Your task to perform on an android device: Clear the cart on newegg.com. Add "alienware area 51" to the cart on newegg.com, then select checkout. Image 0: 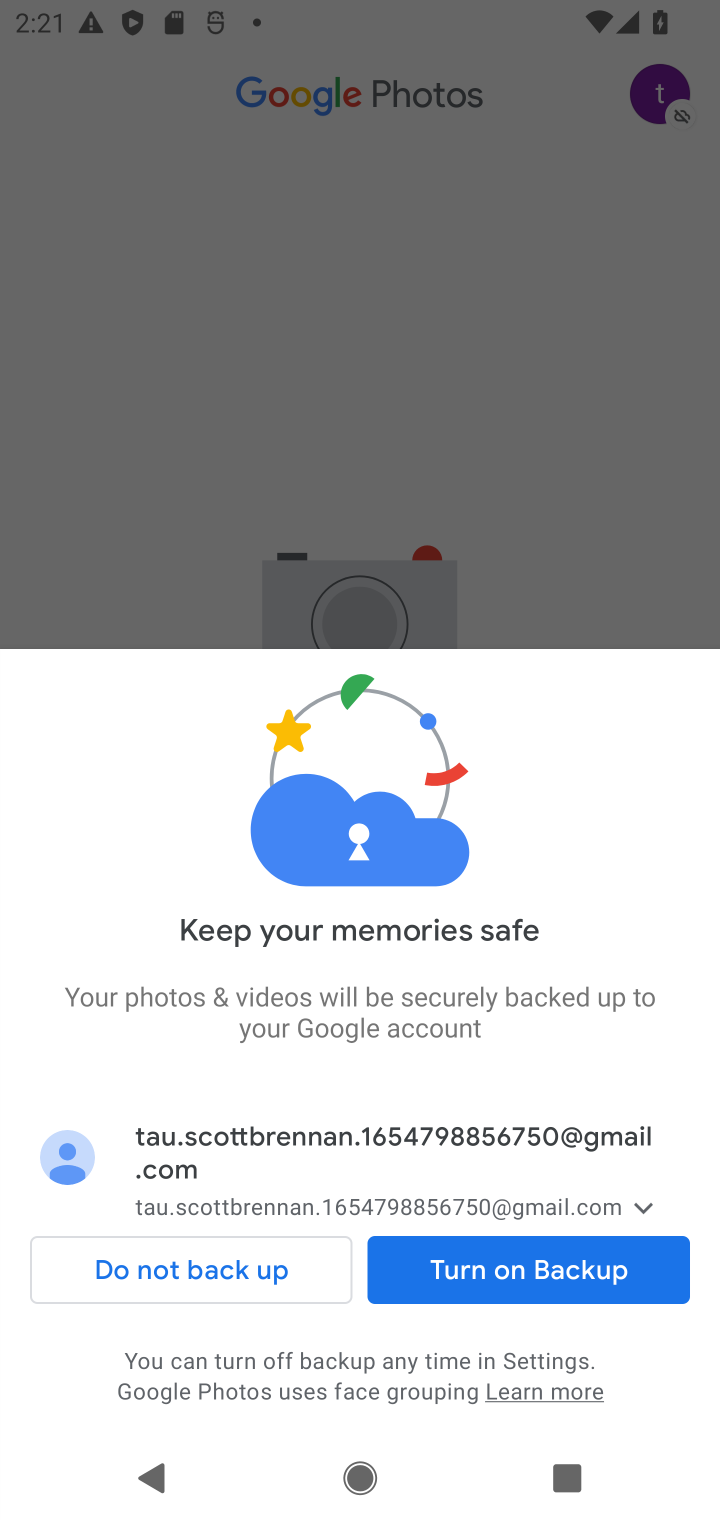
Step 0: press home button
Your task to perform on an android device: Clear the cart on newegg.com. Add "alienware area 51" to the cart on newegg.com, then select checkout. Image 1: 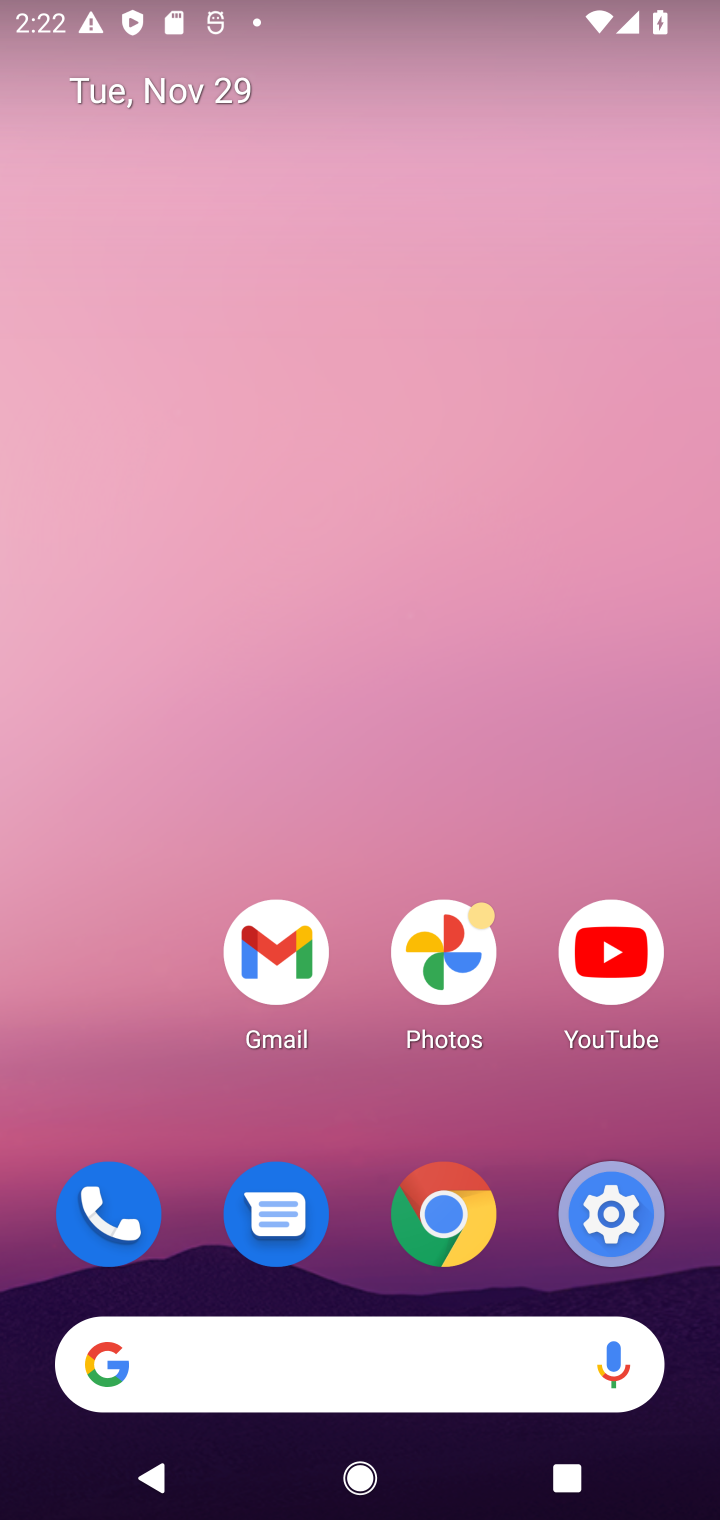
Step 1: click (371, 1396)
Your task to perform on an android device: Clear the cart on newegg.com. Add "alienware area 51" to the cart on newegg.com, then select checkout. Image 2: 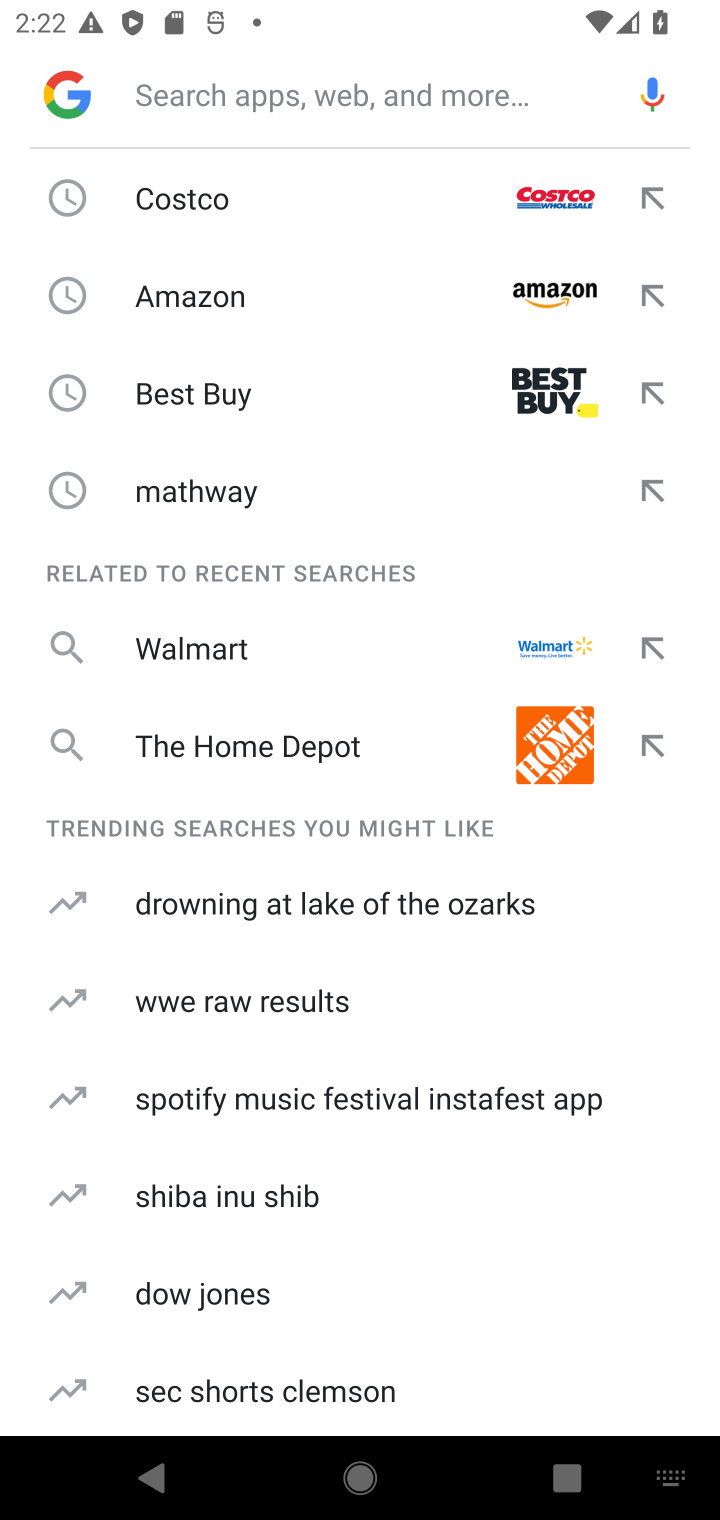
Step 2: type "newegg"
Your task to perform on an android device: Clear the cart on newegg.com. Add "alienware area 51" to the cart on newegg.com, then select checkout. Image 3: 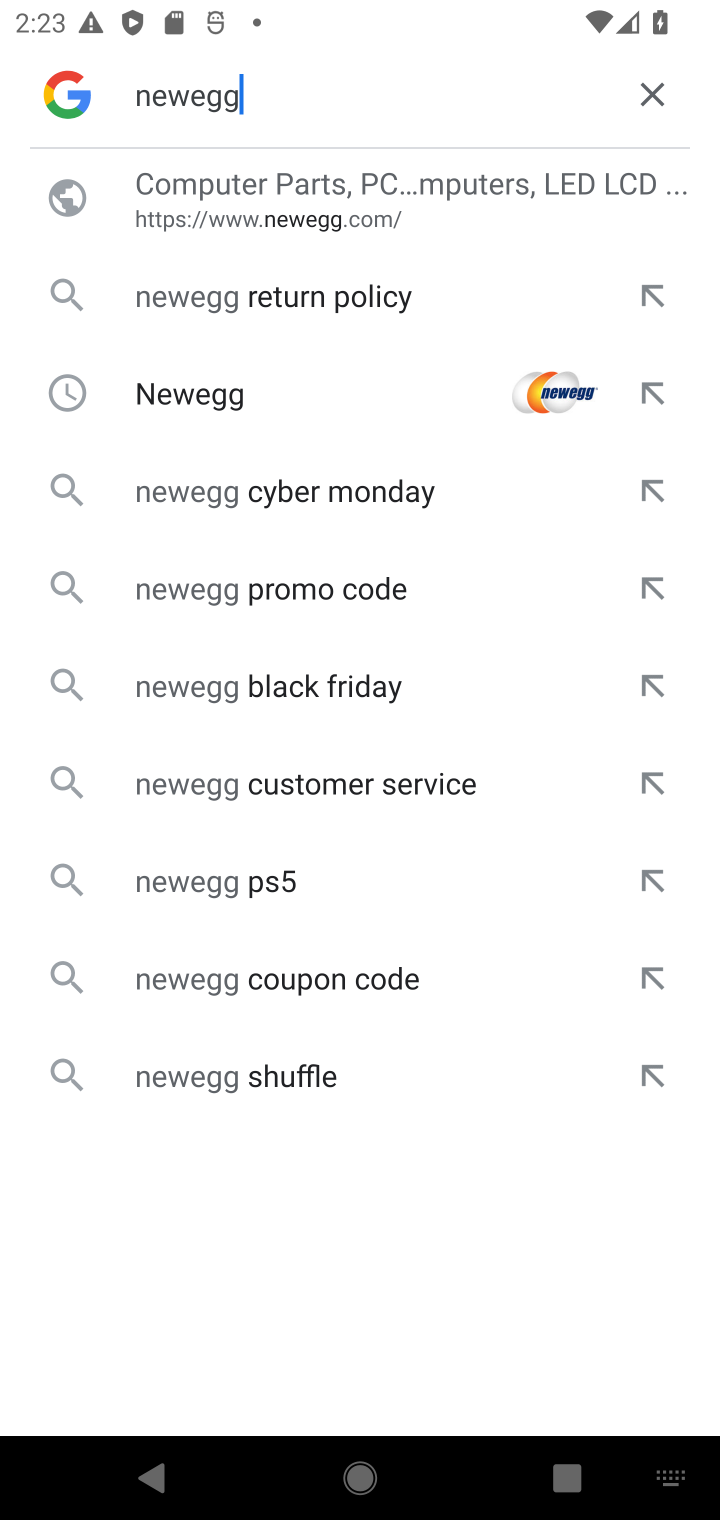
Step 3: click (263, 247)
Your task to perform on an android device: Clear the cart on newegg.com. Add "alienware area 51" to the cart on newegg.com, then select checkout. Image 4: 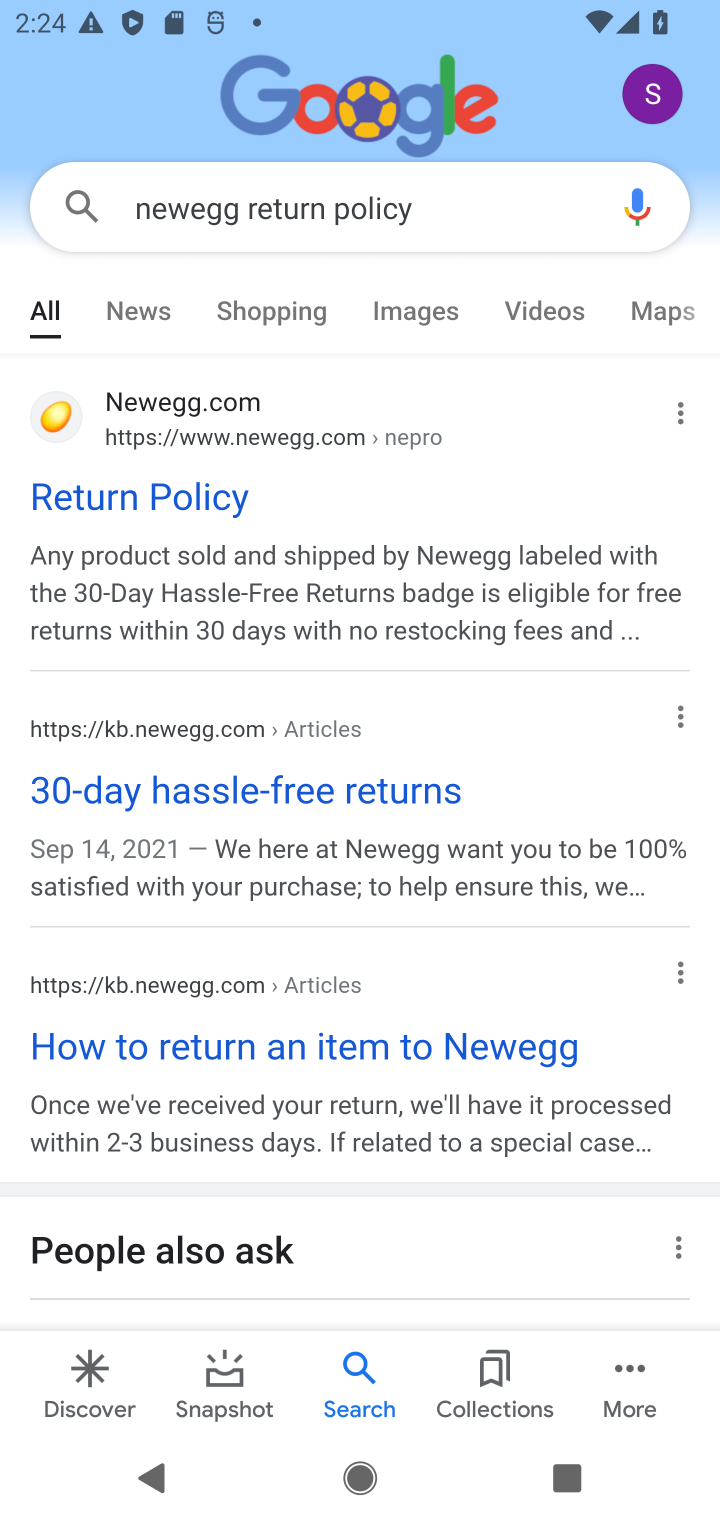
Step 4: click (96, 528)
Your task to perform on an android device: Clear the cart on newegg.com. Add "alienware area 51" to the cart on newegg.com, then select checkout. Image 5: 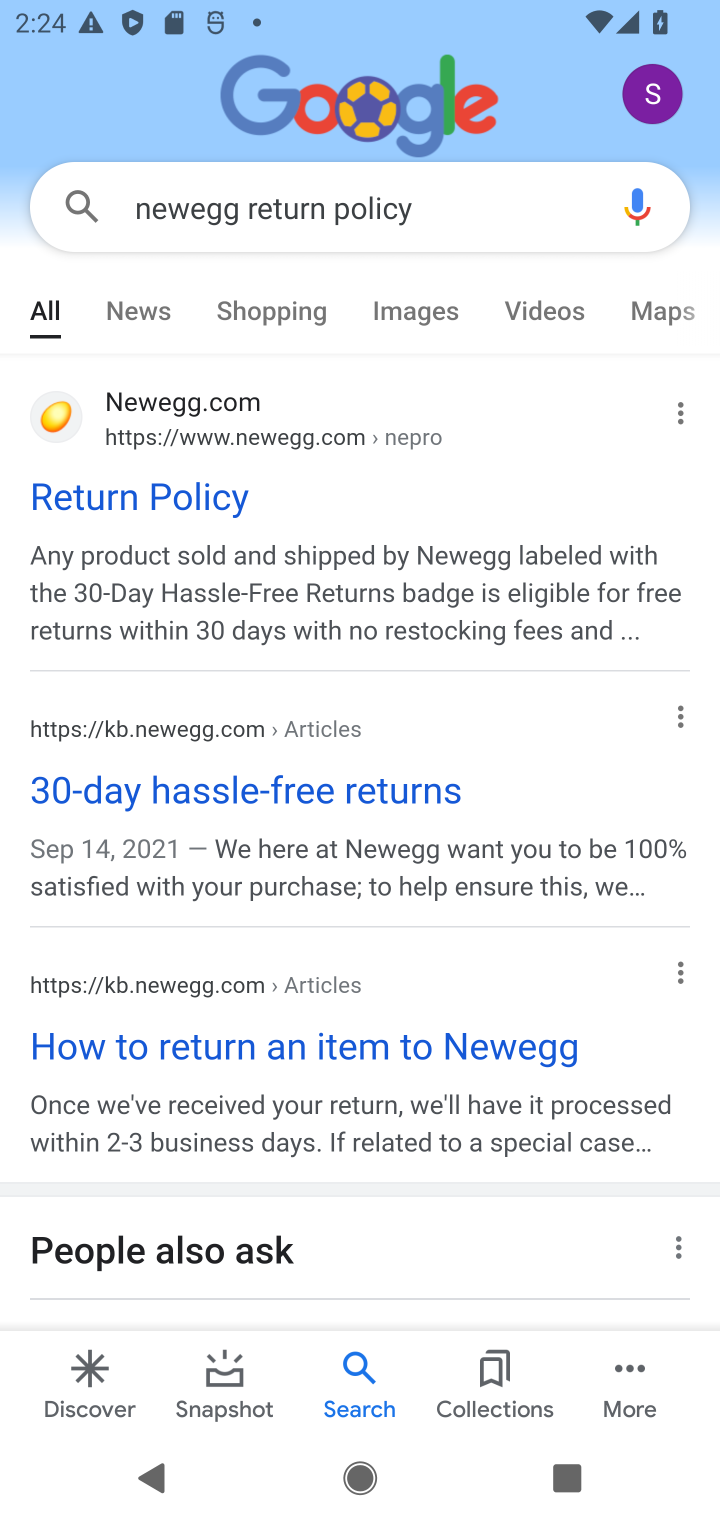
Step 5: click (150, 507)
Your task to perform on an android device: Clear the cart on newegg.com. Add "alienware area 51" to the cart on newegg.com, then select checkout. Image 6: 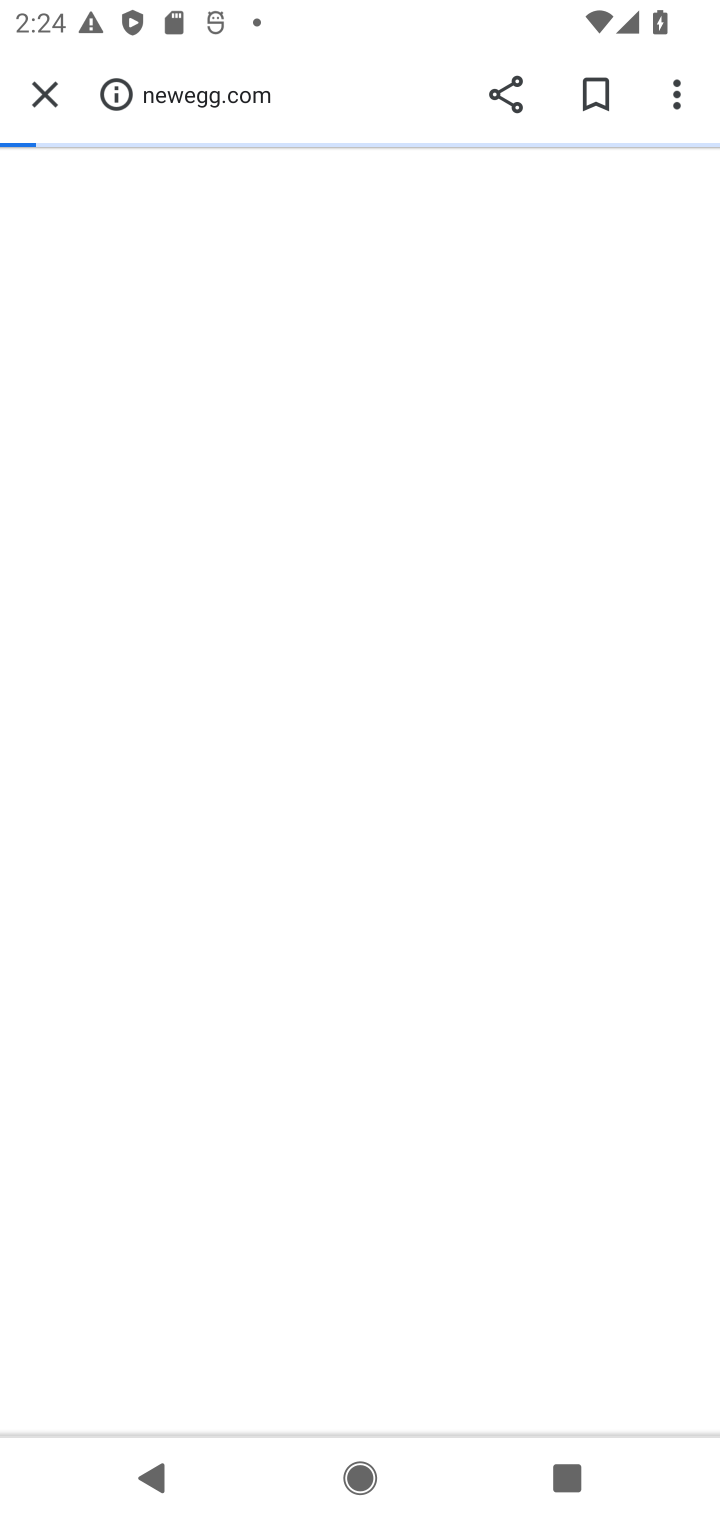
Step 6: task complete